Your task to perform on an android device: see creations saved in the google photos Image 0: 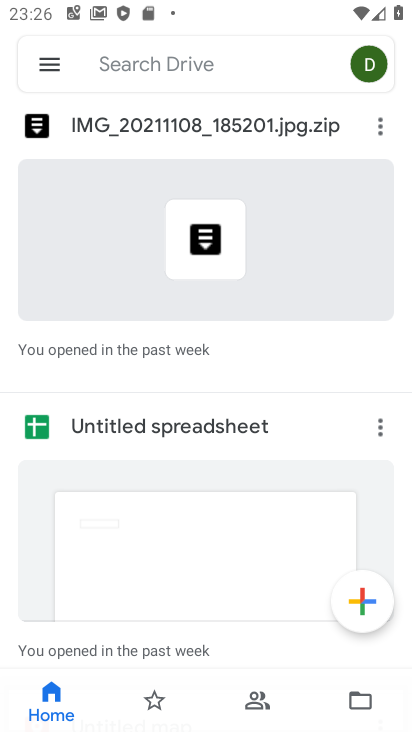
Step 0: press home button
Your task to perform on an android device: see creations saved in the google photos Image 1: 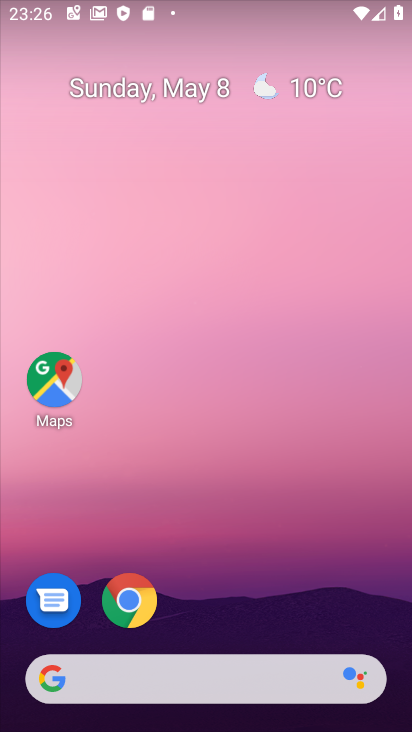
Step 1: drag from (179, 643) to (217, 106)
Your task to perform on an android device: see creations saved in the google photos Image 2: 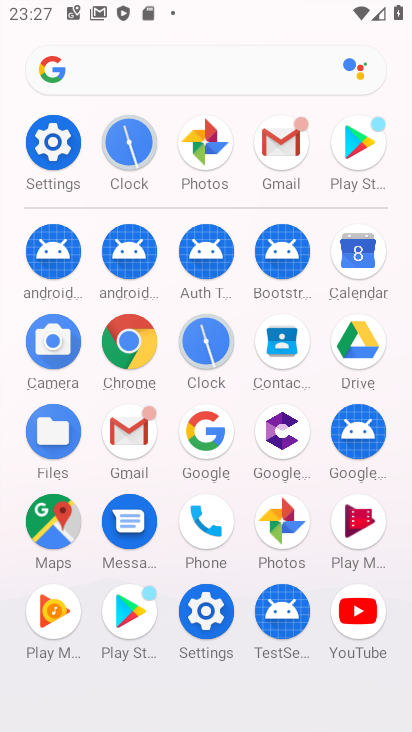
Step 2: click (212, 154)
Your task to perform on an android device: see creations saved in the google photos Image 3: 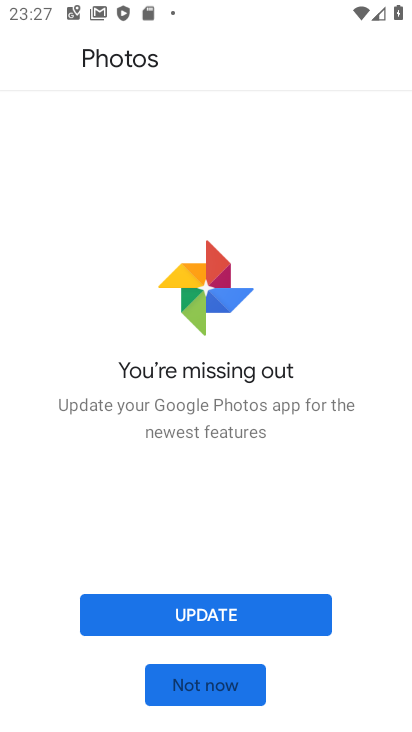
Step 3: click (193, 676)
Your task to perform on an android device: see creations saved in the google photos Image 4: 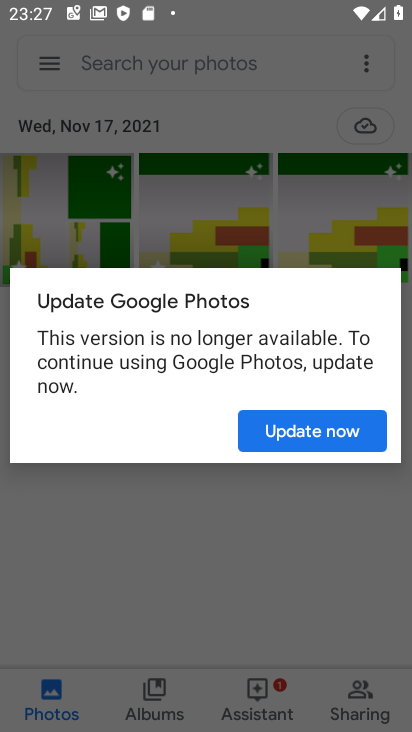
Step 4: click (295, 445)
Your task to perform on an android device: see creations saved in the google photos Image 5: 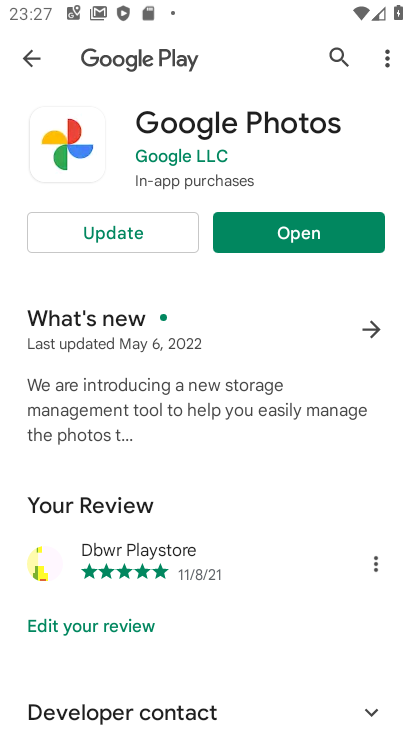
Step 5: click (271, 219)
Your task to perform on an android device: see creations saved in the google photos Image 6: 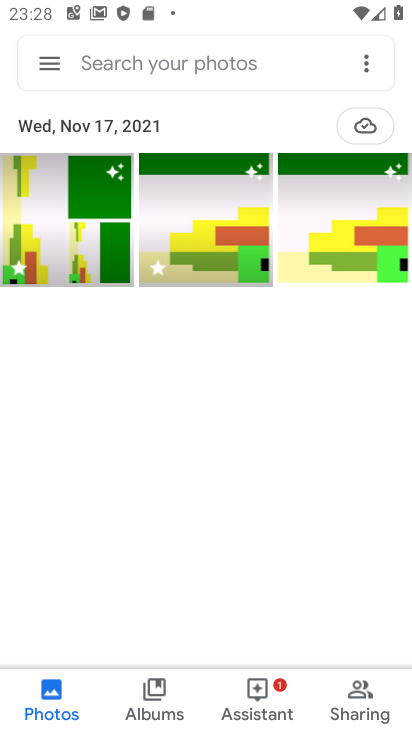
Step 6: task complete